Your task to perform on an android device: change the upload size in google photos Image 0: 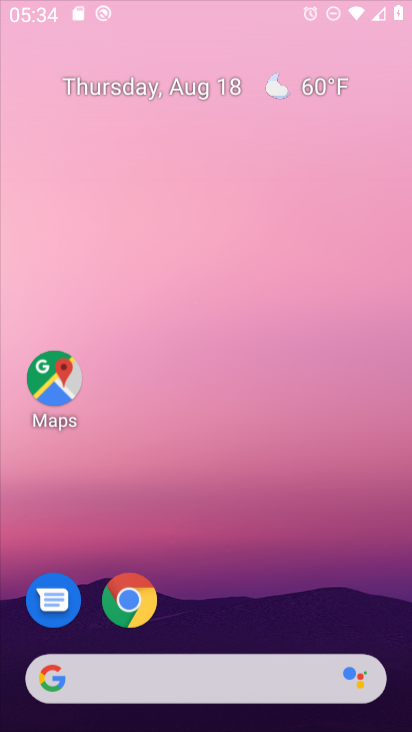
Step 0: press home button
Your task to perform on an android device: change the upload size in google photos Image 1: 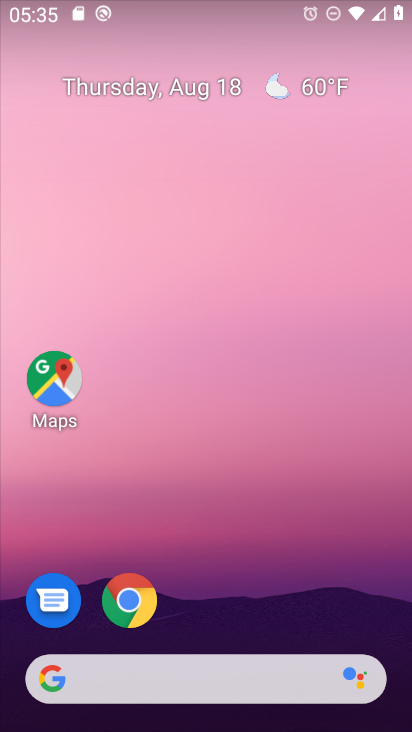
Step 1: drag from (259, 618) to (326, 1)
Your task to perform on an android device: change the upload size in google photos Image 2: 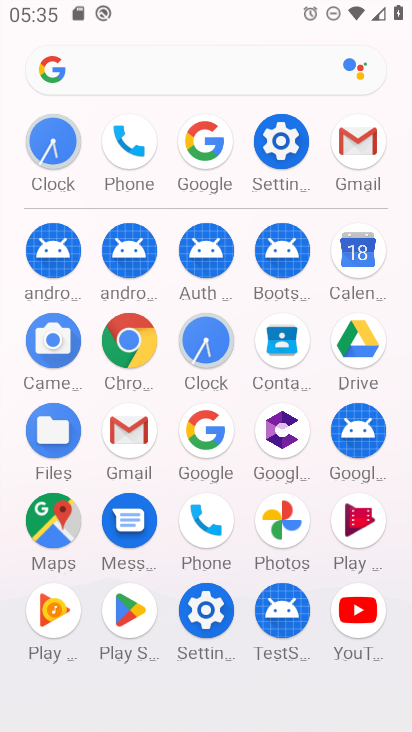
Step 2: click (281, 533)
Your task to perform on an android device: change the upload size in google photos Image 3: 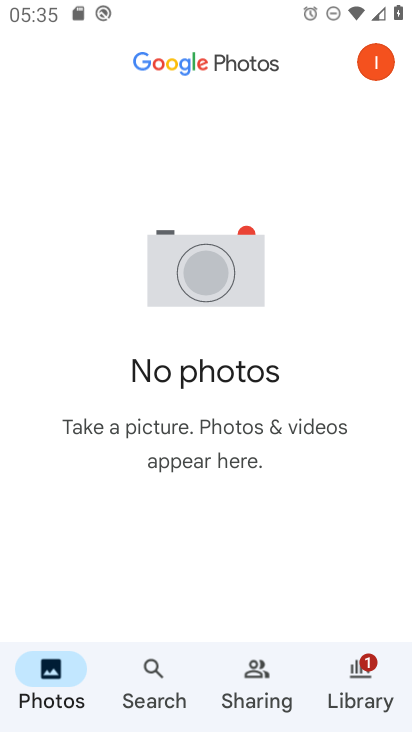
Step 3: click (376, 49)
Your task to perform on an android device: change the upload size in google photos Image 4: 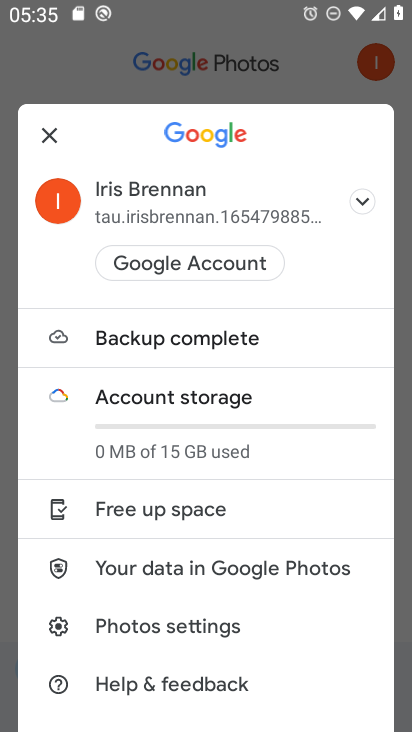
Step 4: click (135, 633)
Your task to perform on an android device: change the upload size in google photos Image 5: 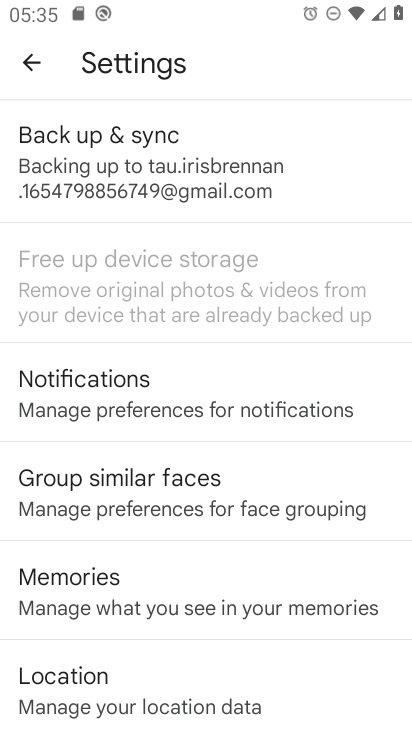
Step 5: click (131, 142)
Your task to perform on an android device: change the upload size in google photos Image 6: 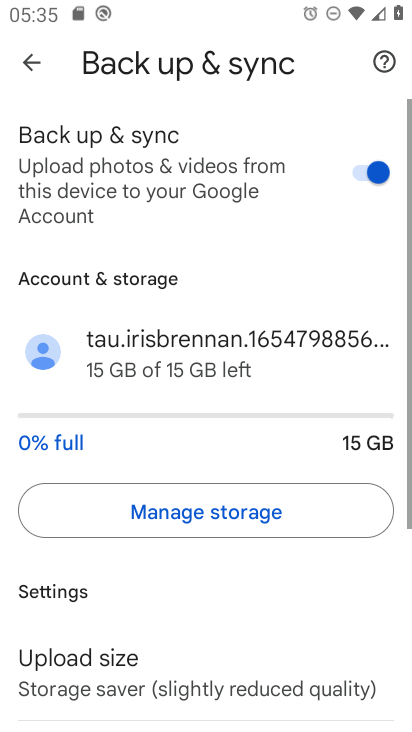
Step 6: click (103, 678)
Your task to perform on an android device: change the upload size in google photos Image 7: 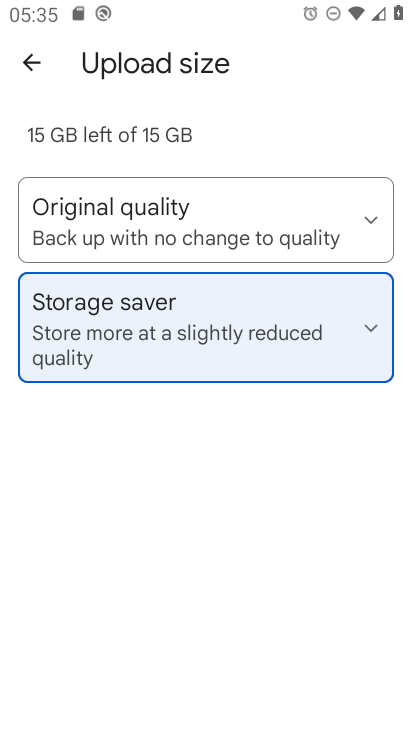
Step 7: click (125, 203)
Your task to perform on an android device: change the upload size in google photos Image 8: 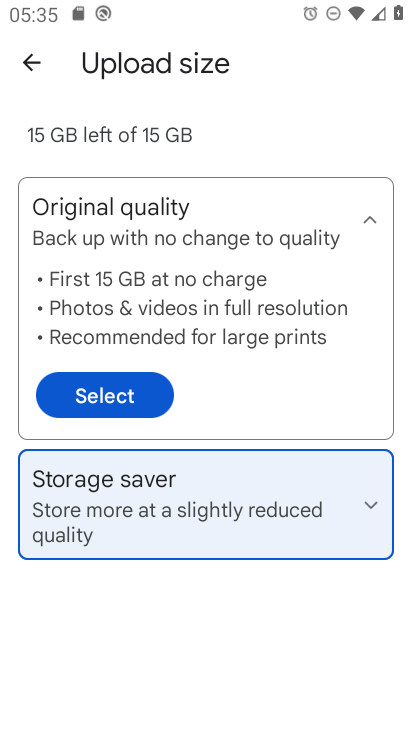
Step 8: click (107, 388)
Your task to perform on an android device: change the upload size in google photos Image 9: 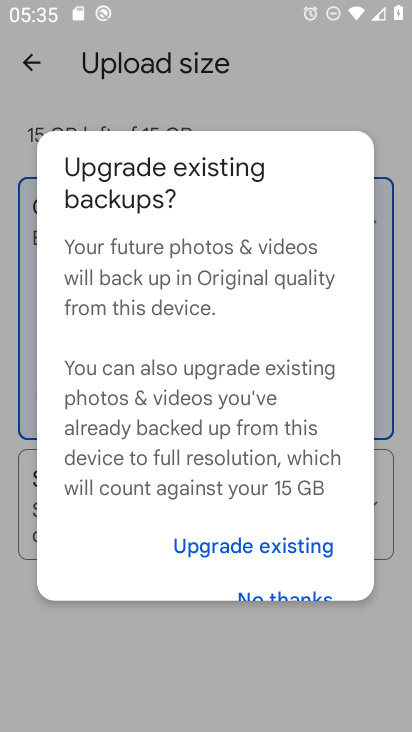
Step 9: click (278, 550)
Your task to perform on an android device: change the upload size in google photos Image 10: 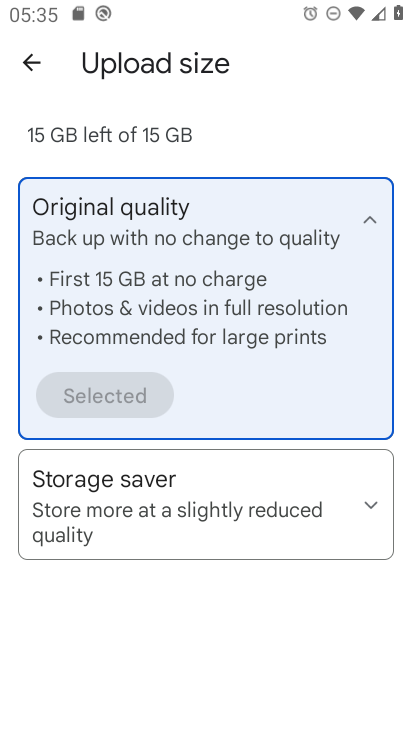
Step 10: task complete